Your task to perform on an android device: Open the stopwatch Image 0: 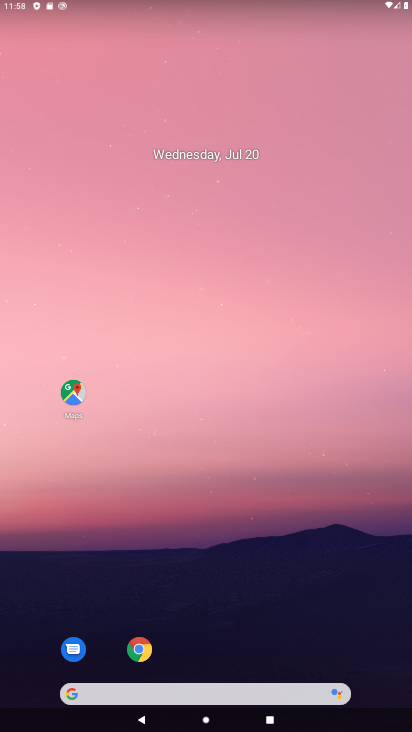
Step 0: drag from (227, 628) to (251, 20)
Your task to perform on an android device: Open the stopwatch Image 1: 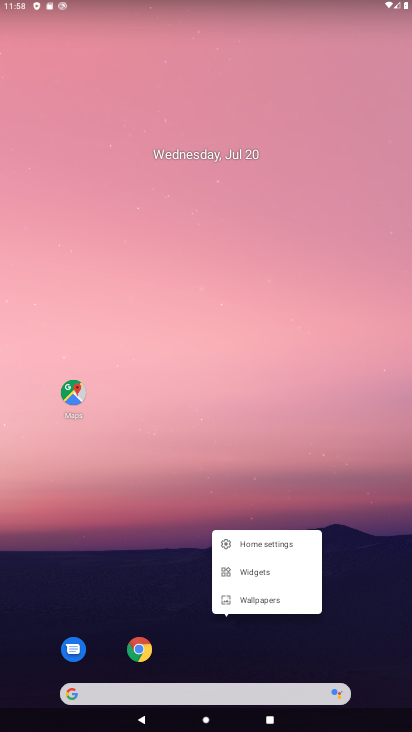
Step 1: click (250, 439)
Your task to perform on an android device: Open the stopwatch Image 2: 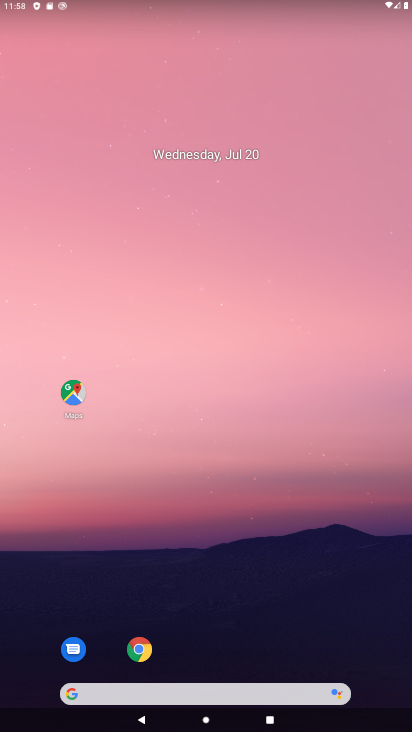
Step 2: drag from (203, 656) to (220, 196)
Your task to perform on an android device: Open the stopwatch Image 3: 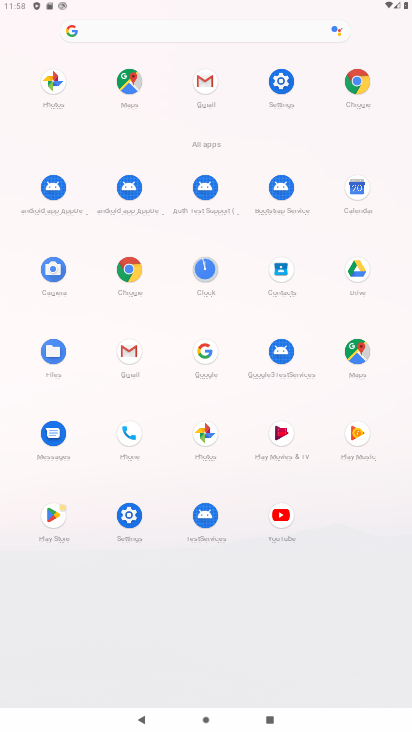
Step 3: click (197, 278)
Your task to perform on an android device: Open the stopwatch Image 4: 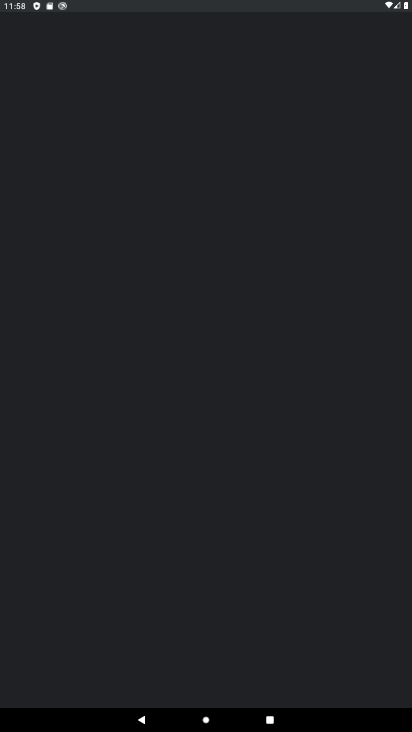
Step 4: task complete